Your task to perform on an android device: open sync settings in chrome Image 0: 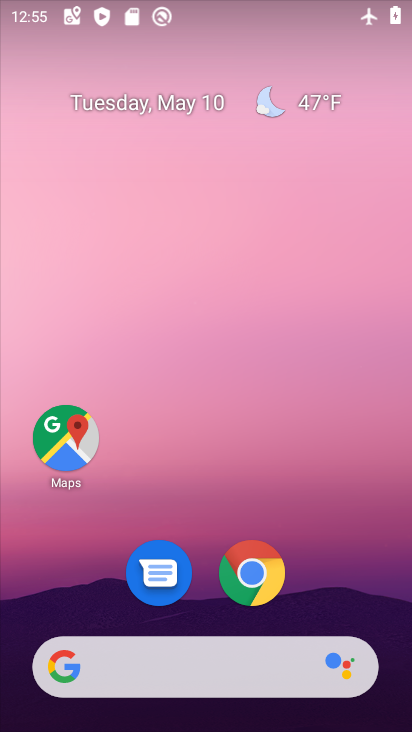
Step 0: drag from (191, 614) to (235, 305)
Your task to perform on an android device: open sync settings in chrome Image 1: 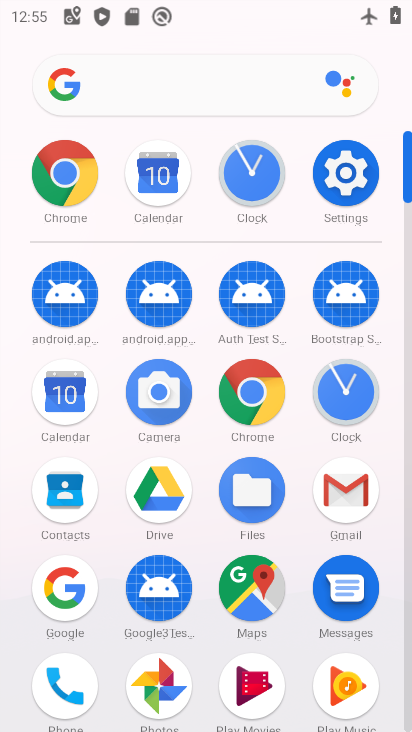
Step 1: drag from (201, 651) to (229, 323)
Your task to perform on an android device: open sync settings in chrome Image 2: 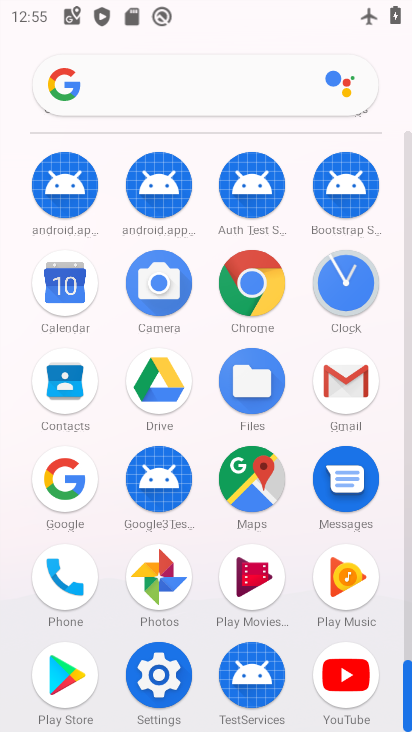
Step 2: click (262, 274)
Your task to perform on an android device: open sync settings in chrome Image 3: 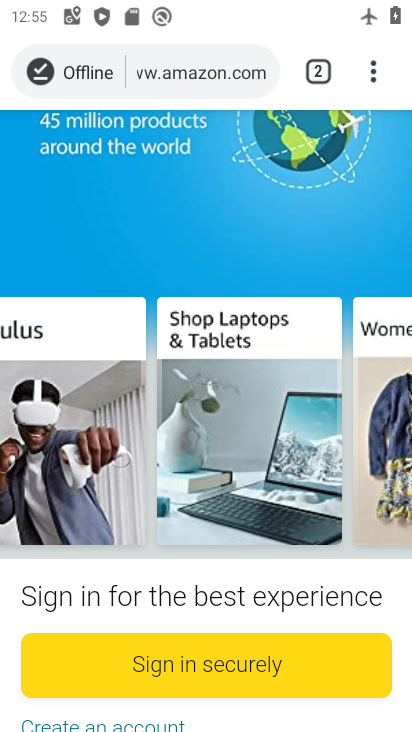
Step 3: click (382, 64)
Your task to perform on an android device: open sync settings in chrome Image 4: 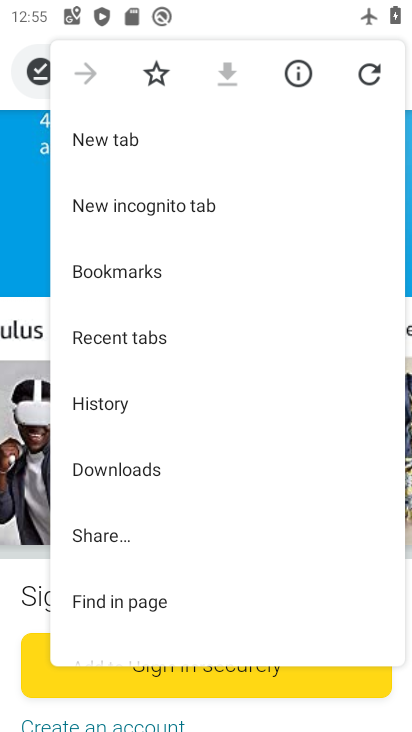
Step 4: drag from (227, 510) to (227, 170)
Your task to perform on an android device: open sync settings in chrome Image 5: 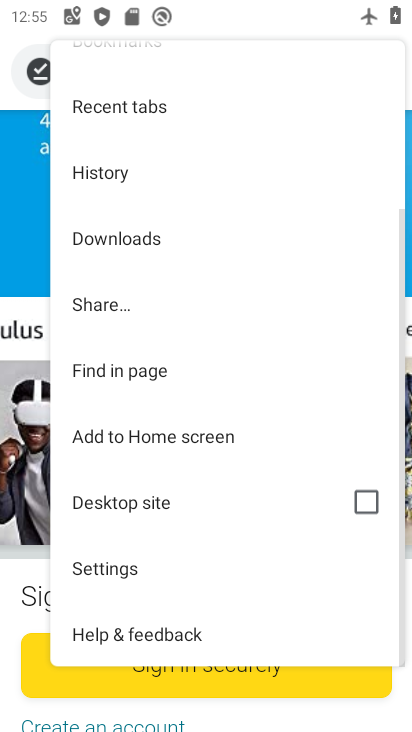
Step 5: click (120, 558)
Your task to perform on an android device: open sync settings in chrome Image 6: 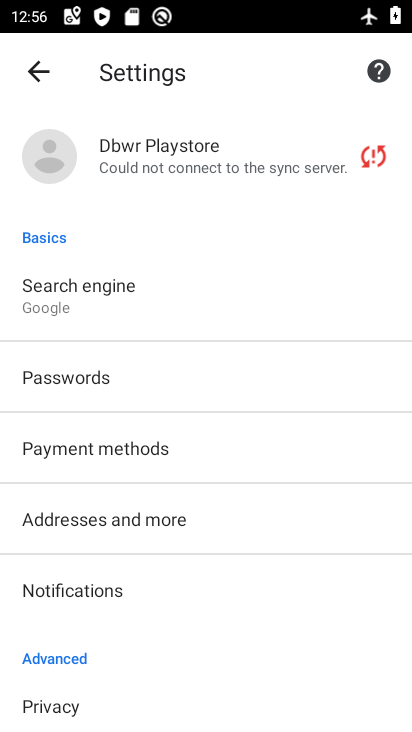
Step 6: drag from (162, 633) to (252, 263)
Your task to perform on an android device: open sync settings in chrome Image 7: 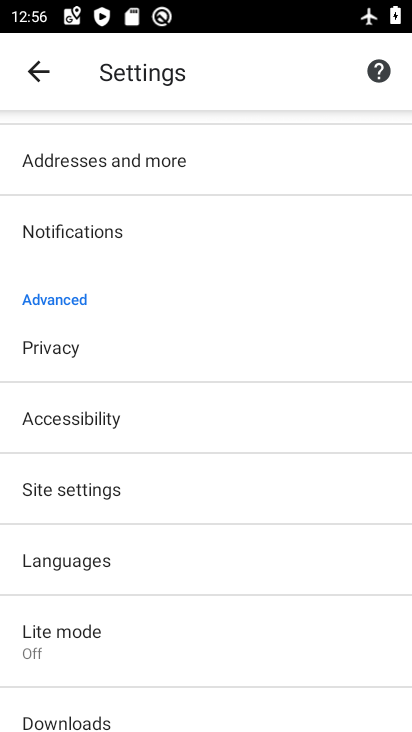
Step 7: click (105, 494)
Your task to perform on an android device: open sync settings in chrome Image 8: 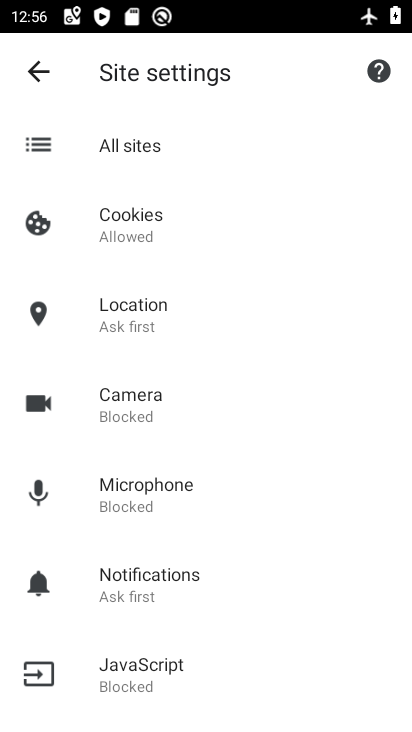
Step 8: drag from (191, 564) to (269, 214)
Your task to perform on an android device: open sync settings in chrome Image 9: 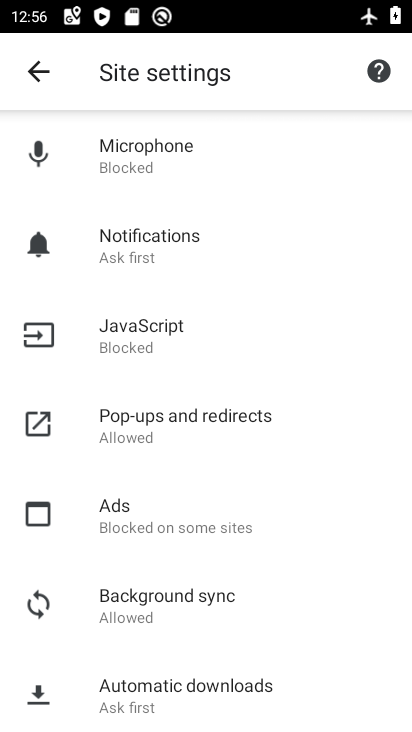
Step 9: click (167, 626)
Your task to perform on an android device: open sync settings in chrome Image 10: 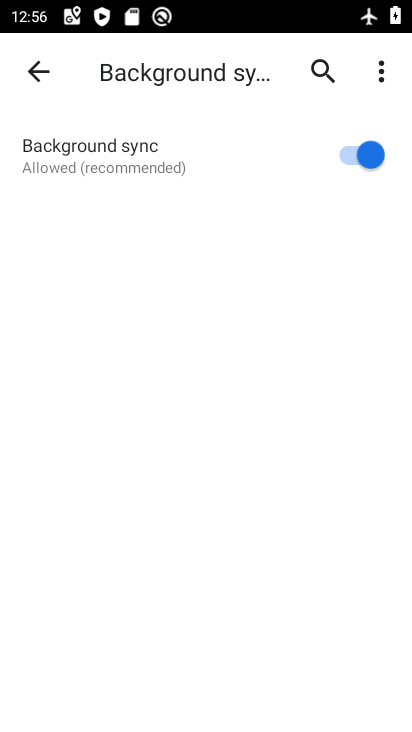
Step 10: task complete